Your task to perform on an android device: turn pop-ups off in chrome Image 0: 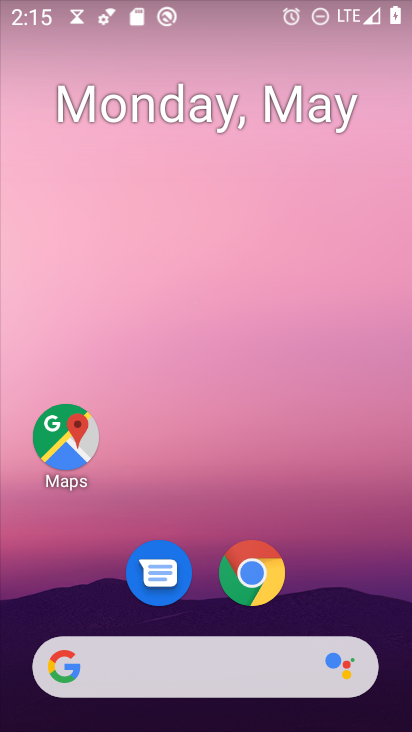
Step 0: drag from (368, 634) to (184, 1)
Your task to perform on an android device: turn pop-ups off in chrome Image 1: 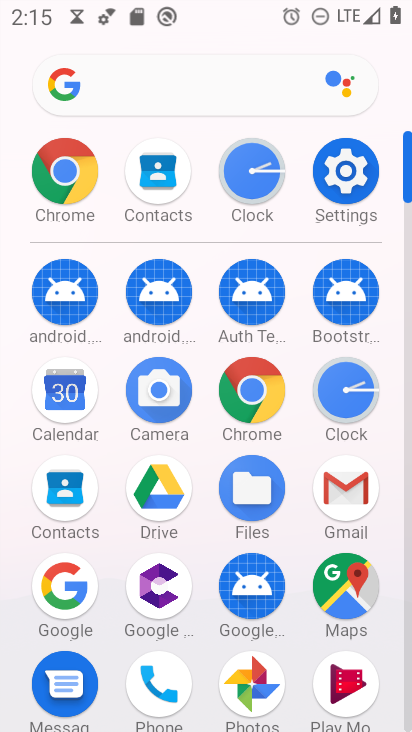
Step 1: click (254, 405)
Your task to perform on an android device: turn pop-ups off in chrome Image 2: 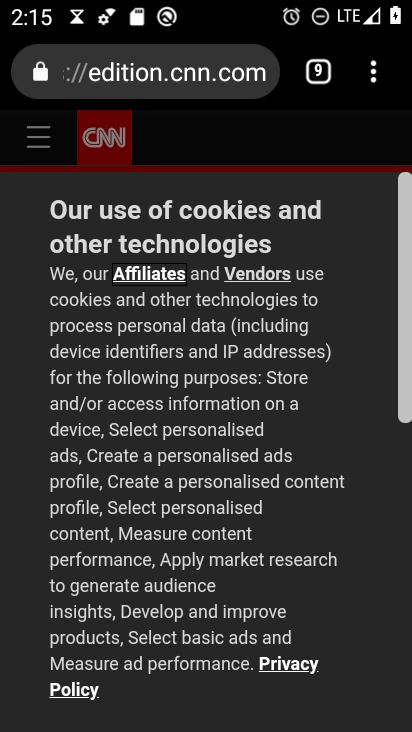
Step 2: drag from (371, 64) to (143, 568)
Your task to perform on an android device: turn pop-ups off in chrome Image 3: 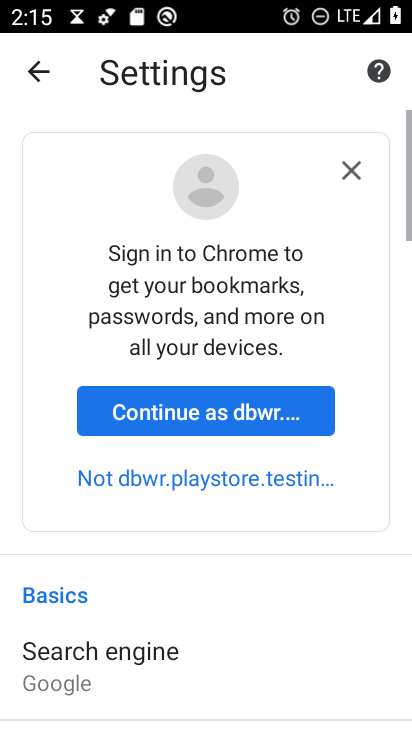
Step 3: drag from (200, 658) to (198, 117)
Your task to perform on an android device: turn pop-ups off in chrome Image 4: 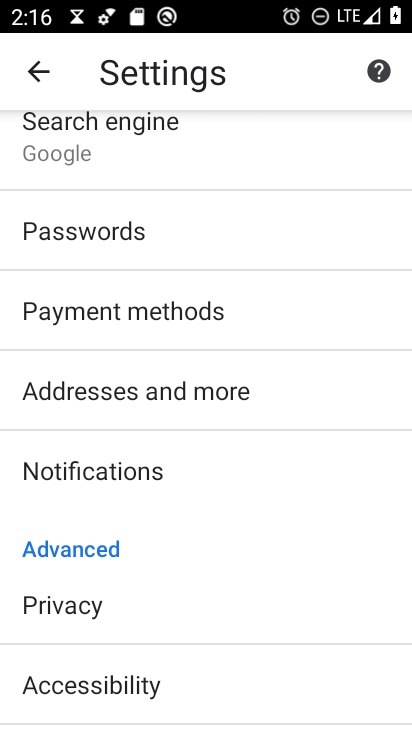
Step 4: drag from (244, 648) to (250, 382)
Your task to perform on an android device: turn pop-ups off in chrome Image 5: 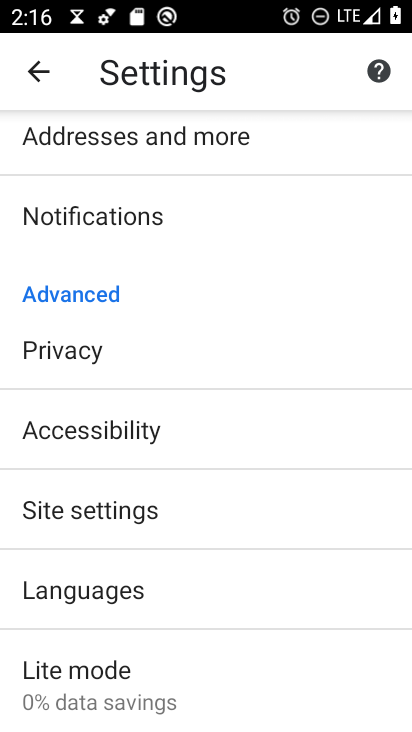
Step 5: click (136, 516)
Your task to perform on an android device: turn pop-ups off in chrome Image 6: 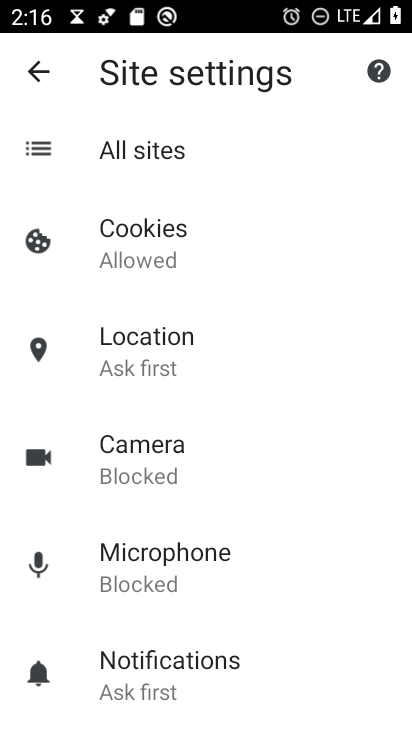
Step 6: drag from (273, 657) to (265, 472)
Your task to perform on an android device: turn pop-ups off in chrome Image 7: 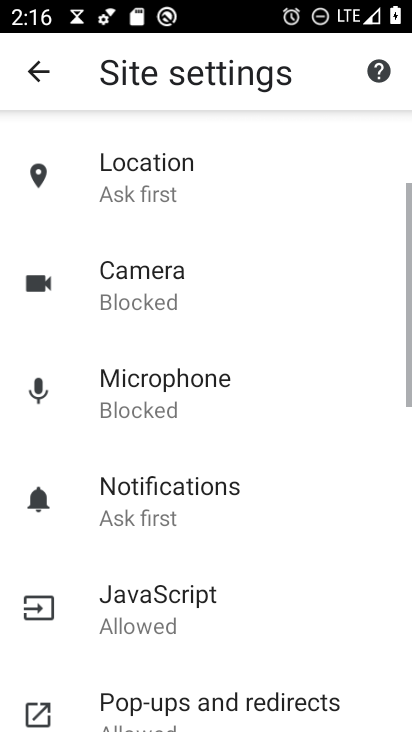
Step 7: click (245, 549)
Your task to perform on an android device: turn pop-ups off in chrome Image 8: 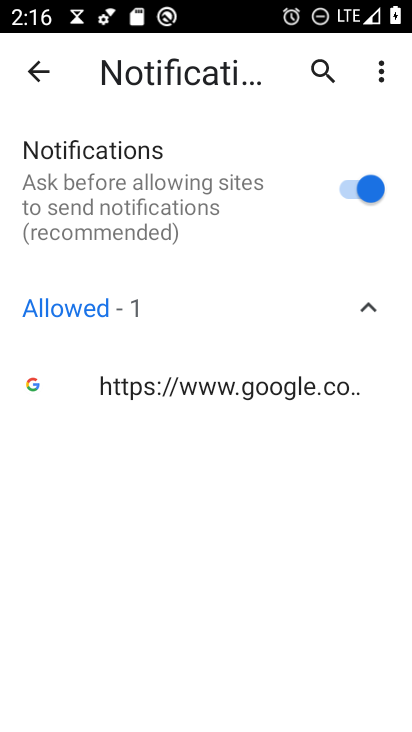
Step 8: press back button
Your task to perform on an android device: turn pop-ups off in chrome Image 9: 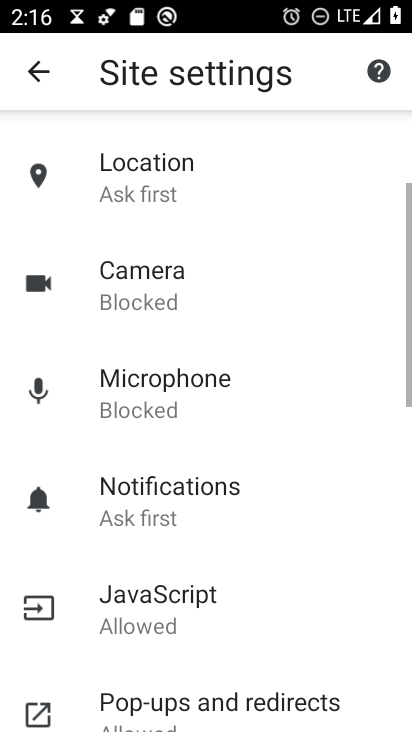
Step 9: click (185, 706)
Your task to perform on an android device: turn pop-ups off in chrome Image 10: 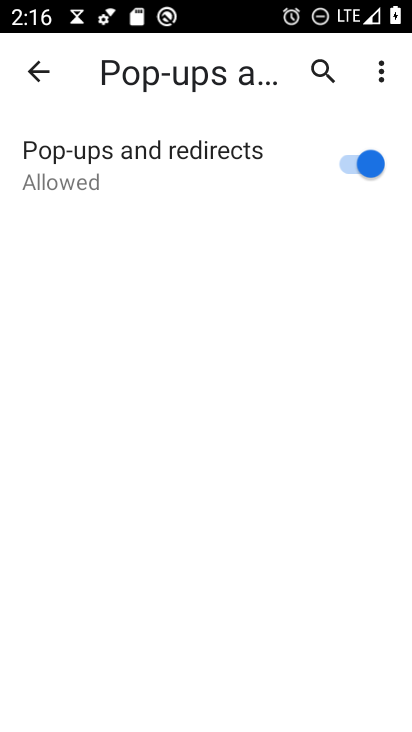
Step 10: click (353, 164)
Your task to perform on an android device: turn pop-ups off in chrome Image 11: 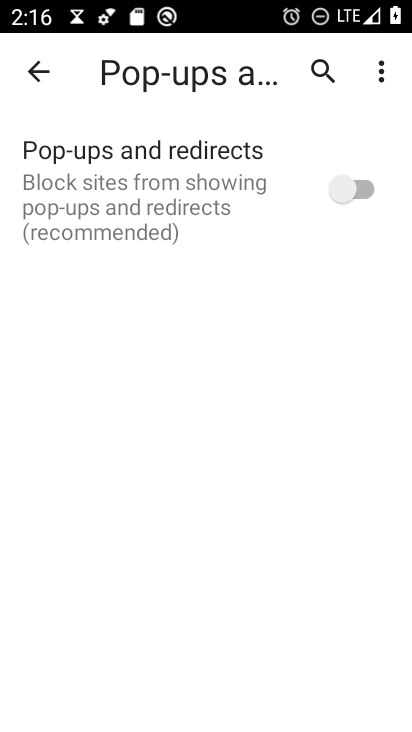
Step 11: task complete